Your task to perform on an android device: Clear the cart on costco.com. Search for macbook pro 15 inch on costco.com, select the first entry, add it to the cart, then select checkout. Image 0: 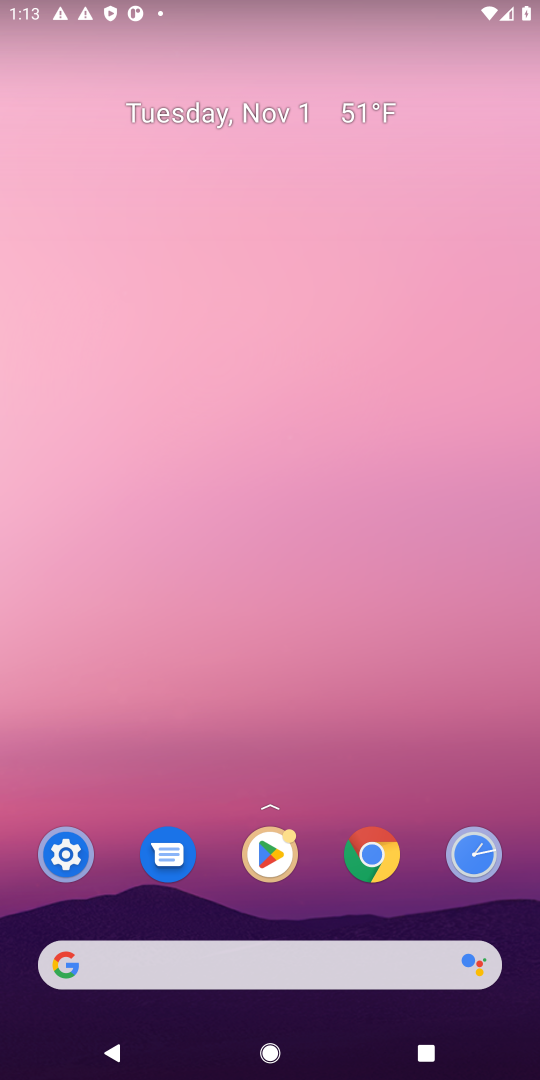
Step 0: click (259, 962)
Your task to perform on an android device: Clear the cart on costco.com. Search for macbook pro 15 inch on costco.com, select the first entry, add it to the cart, then select checkout. Image 1: 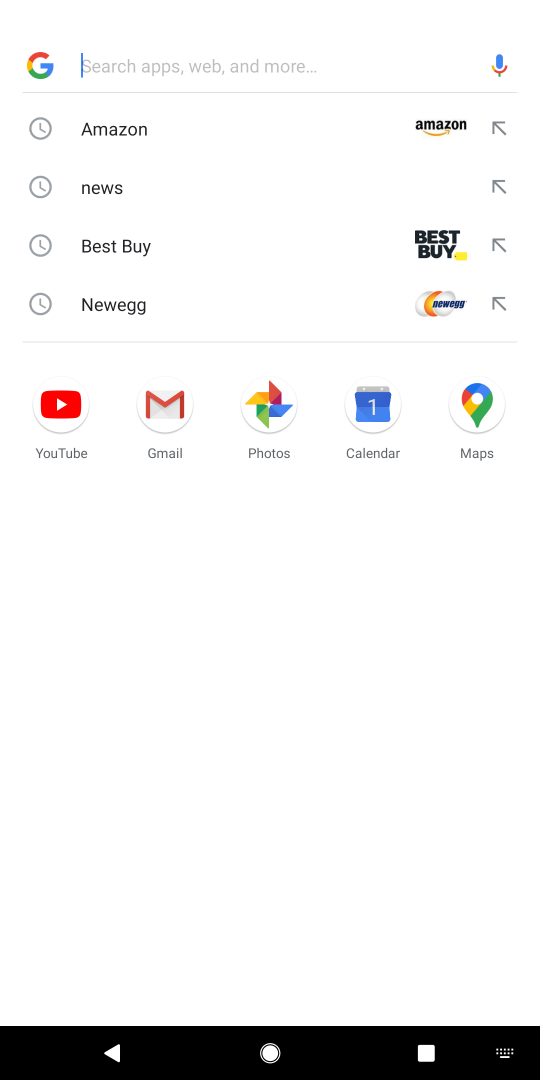
Step 1: type "costco.com"
Your task to perform on an android device: Clear the cart on costco.com. Search for macbook pro 15 inch on costco.com, select the first entry, add it to the cart, then select checkout. Image 2: 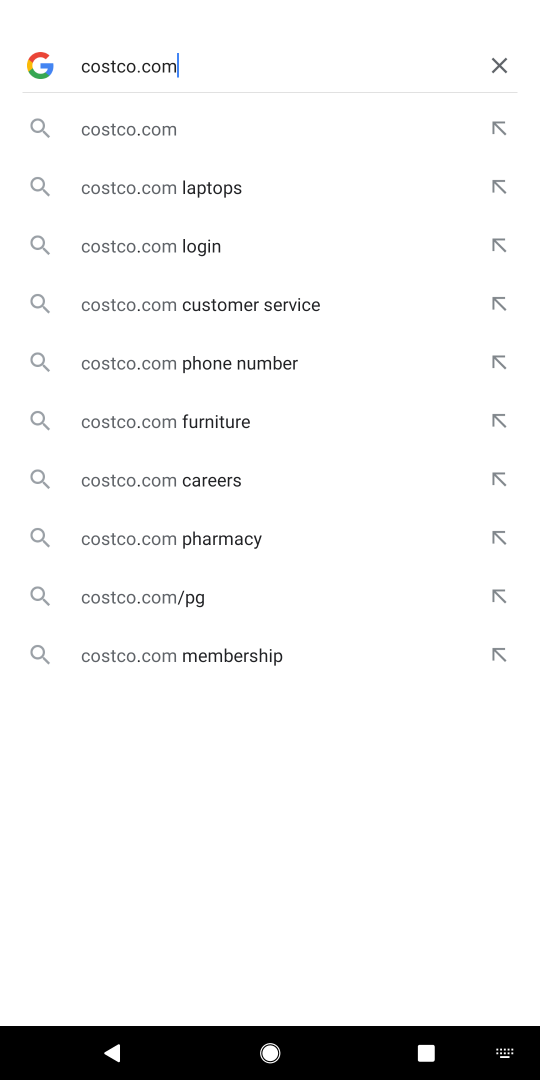
Step 2: click (134, 117)
Your task to perform on an android device: Clear the cart on costco.com. Search for macbook pro 15 inch on costco.com, select the first entry, add it to the cart, then select checkout. Image 3: 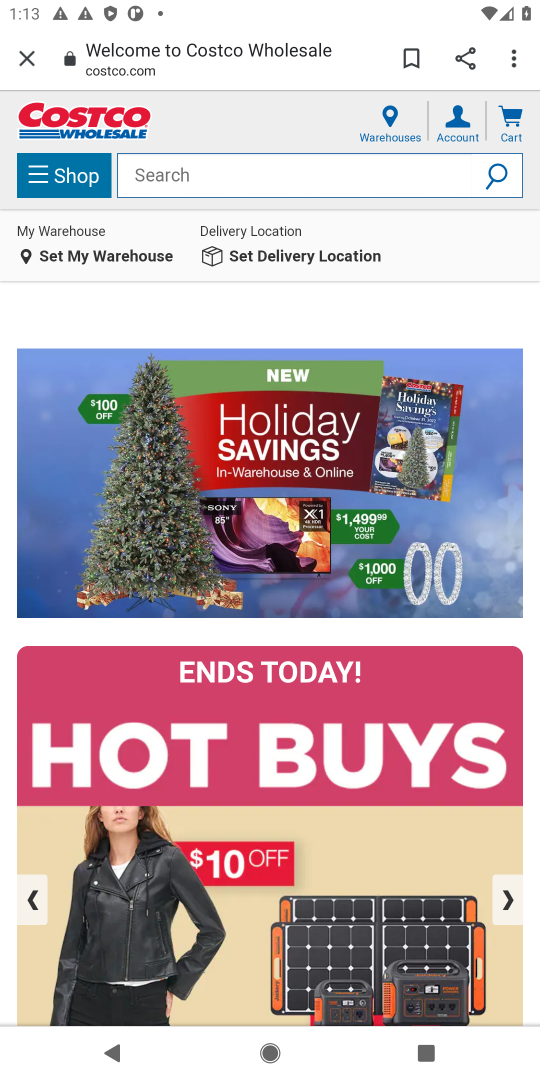
Step 3: click (161, 179)
Your task to perform on an android device: Clear the cart on costco.com. Search for macbook pro 15 inch on costco.com, select the first entry, add it to the cart, then select checkout. Image 4: 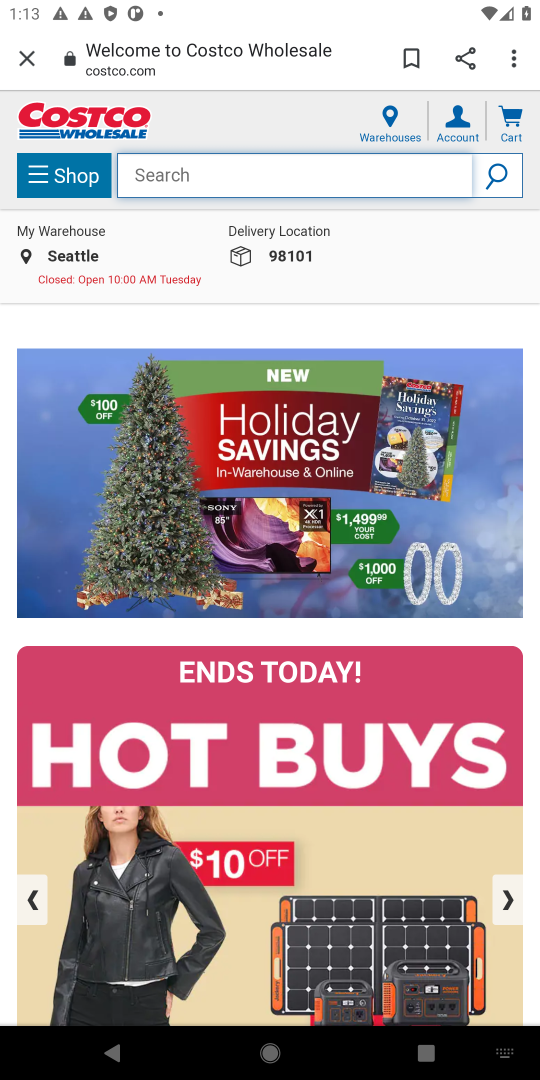
Step 4: type "macbook pro 15 inch"
Your task to perform on an android device: Clear the cart on costco.com. Search for macbook pro 15 inch on costco.com, select the first entry, add it to the cart, then select checkout. Image 5: 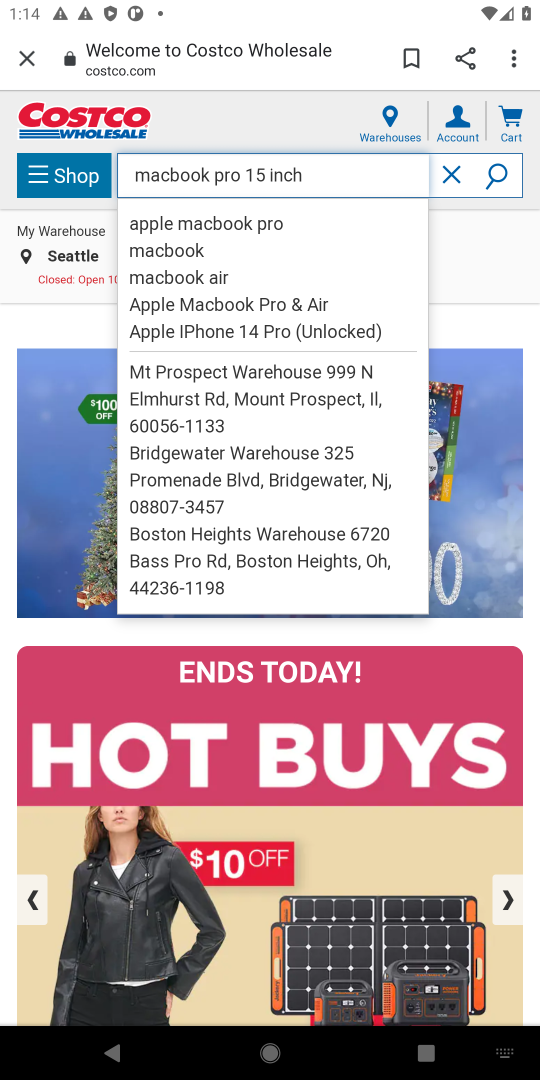
Step 5: click (193, 221)
Your task to perform on an android device: Clear the cart on costco.com. Search for macbook pro 15 inch on costco.com, select the first entry, add it to the cart, then select checkout. Image 6: 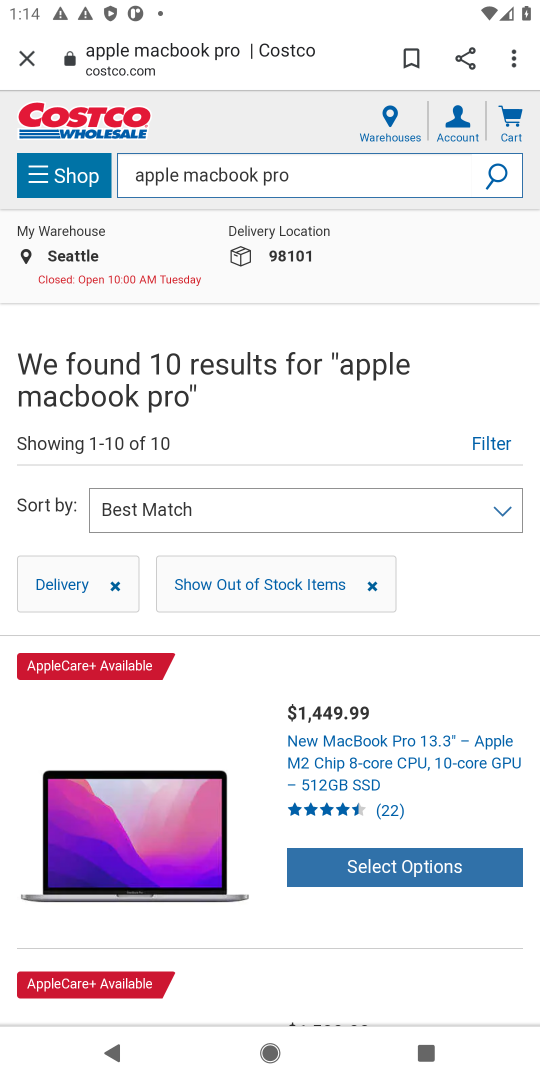
Step 6: click (379, 752)
Your task to perform on an android device: Clear the cart on costco.com. Search for macbook pro 15 inch on costco.com, select the first entry, add it to the cart, then select checkout. Image 7: 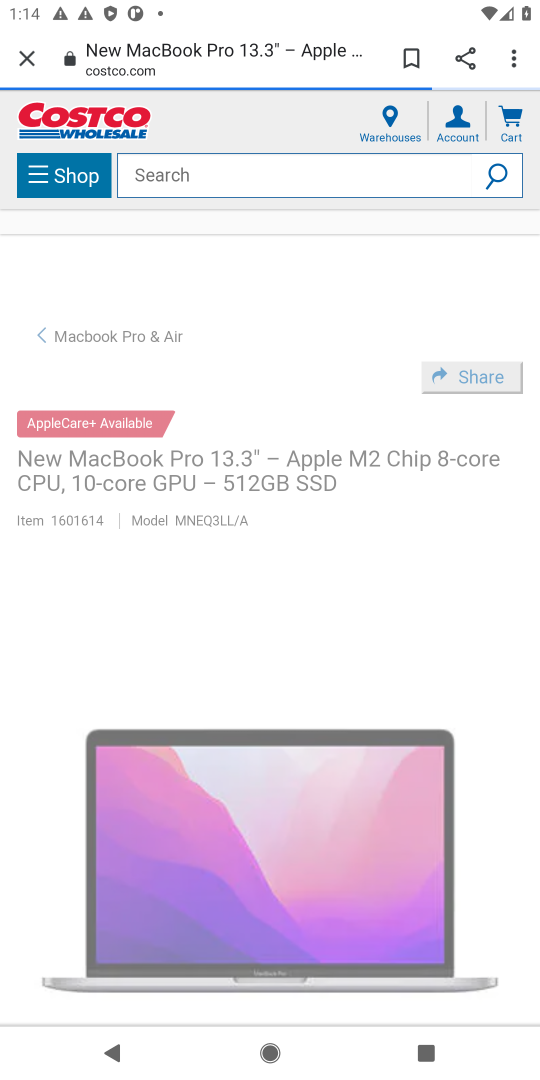
Step 7: drag from (441, 576) to (383, 257)
Your task to perform on an android device: Clear the cart on costco.com. Search for macbook pro 15 inch on costco.com, select the first entry, add it to the cart, then select checkout. Image 8: 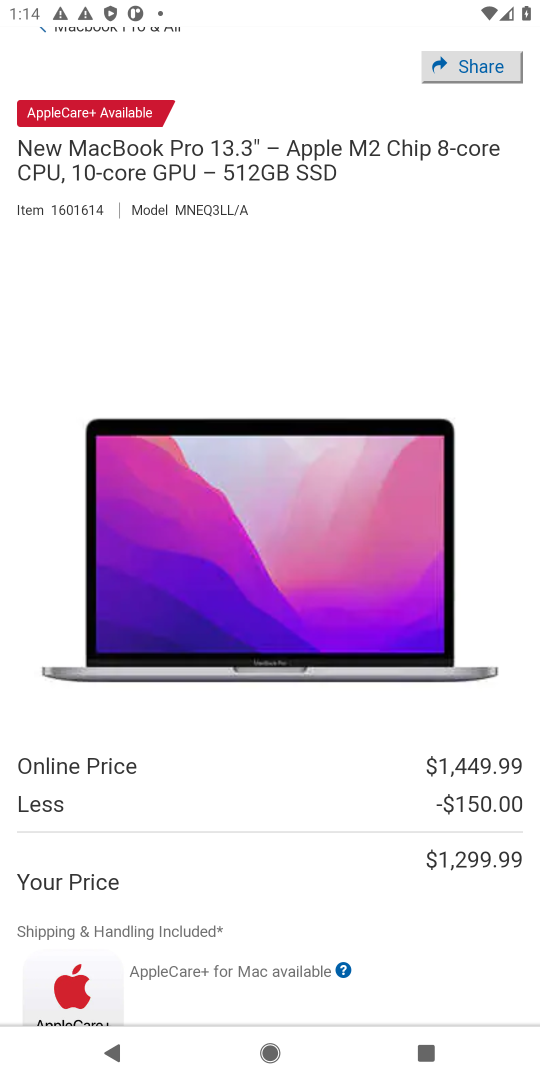
Step 8: drag from (382, 891) to (335, 583)
Your task to perform on an android device: Clear the cart on costco.com. Search for macbook pro 15 inch on costco.com, select the first entry, add it to the cart, then select checkout. Image 9: 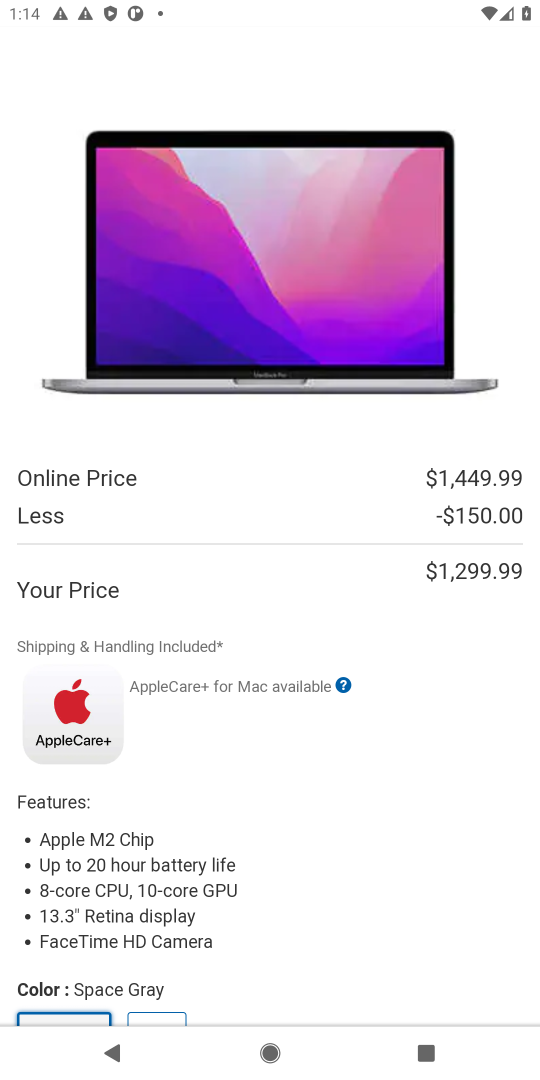
Step 9: drag from (335, 879) to (289, 579)
Your task to perform on an android device: Clear the cart on costco.com. Search for macbook pro 15 inch on costco.com, select the first entry, add it to the cart, then select checkout. Image 10: 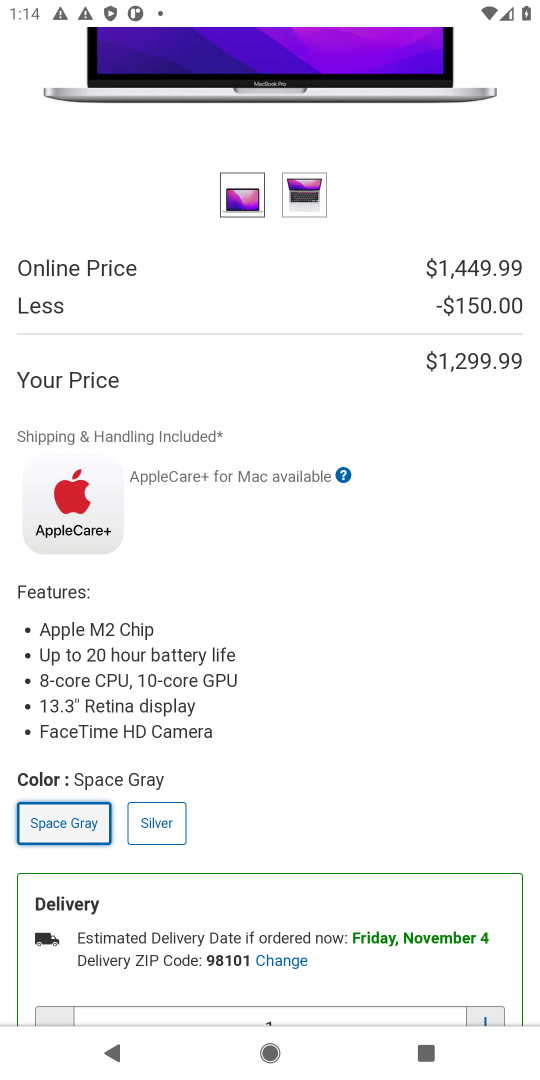
Step 10: drag from (269, 747) to (218, 288)
Your task to perform on an android device: Clear the cart on costco.com. Search for macbook pro 15 inch on costco.com, select the first entry, add it to the cart, then select checkout. Image 11: 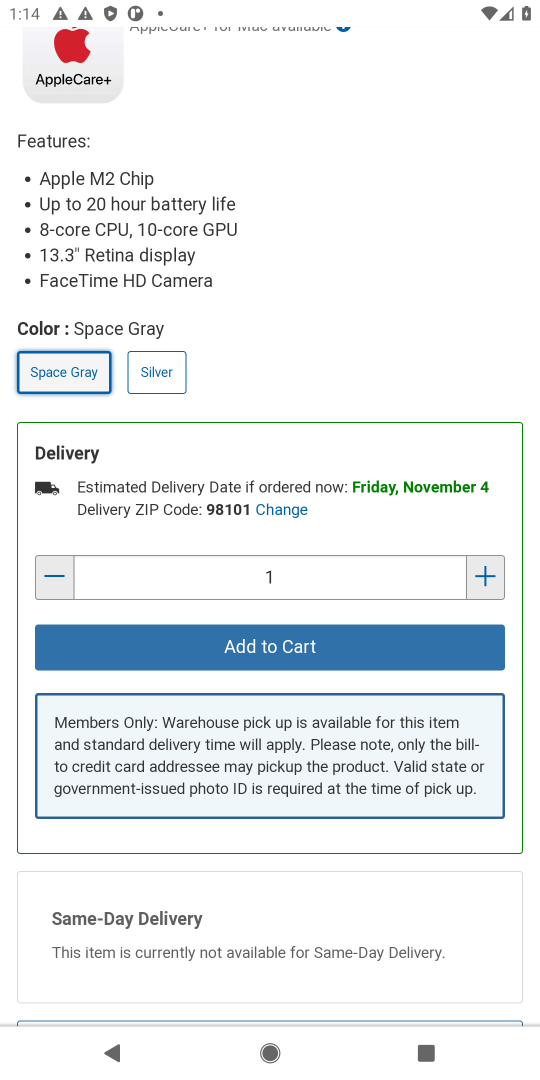
Step 11: click (261, 652)
Your task to perform on an android device: Clear the cart on costco.com. Search for macbook pro 15 inch on costco.com, select the first entry, add it to the cart, then select checkout. Image 12: 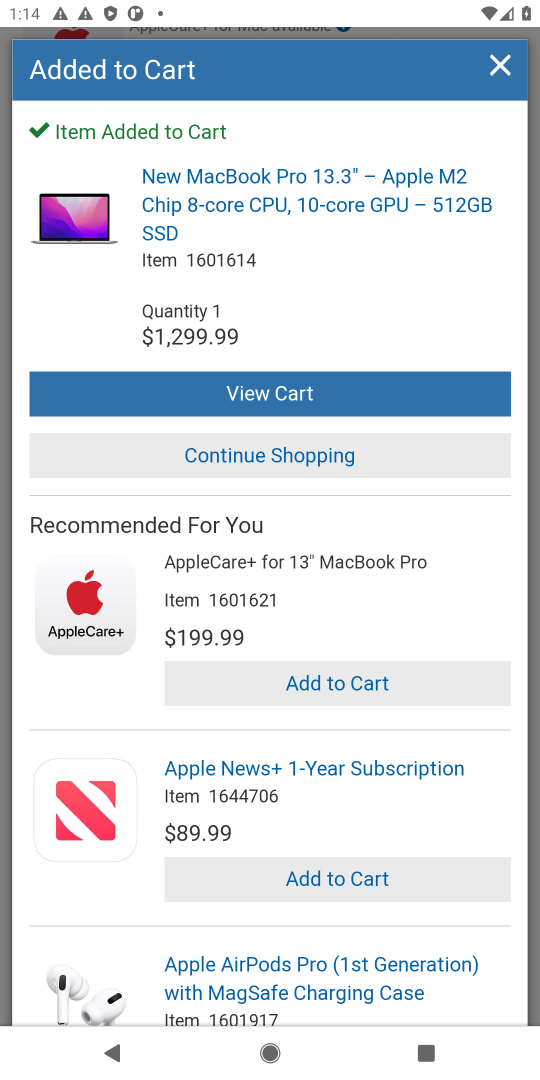
Step 12: click (301, 393)
Your task to perform on an android device: Clear the cart on costco.com. Search for macbook pro 15 inch on costco.com, select the first entry, add it to the cart, then select checkout. Image 13: 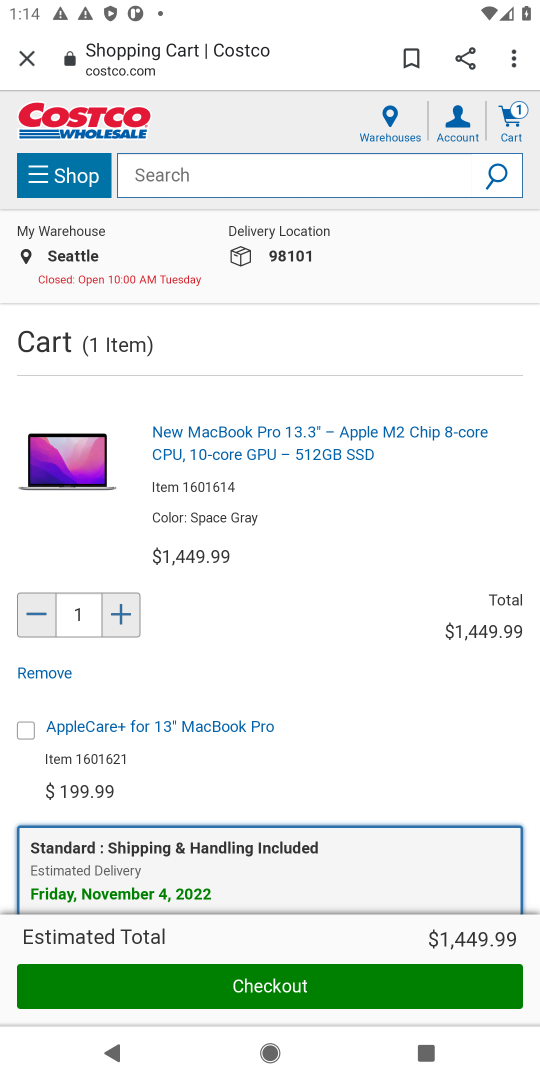
Step 13: click (310, 983)
Your task to perform on an android device: Clear the cart on costco.com. Search for macbook pro 15 inch on costco.com, select the first entry, add it to the cart, then select checkout. Image 14: 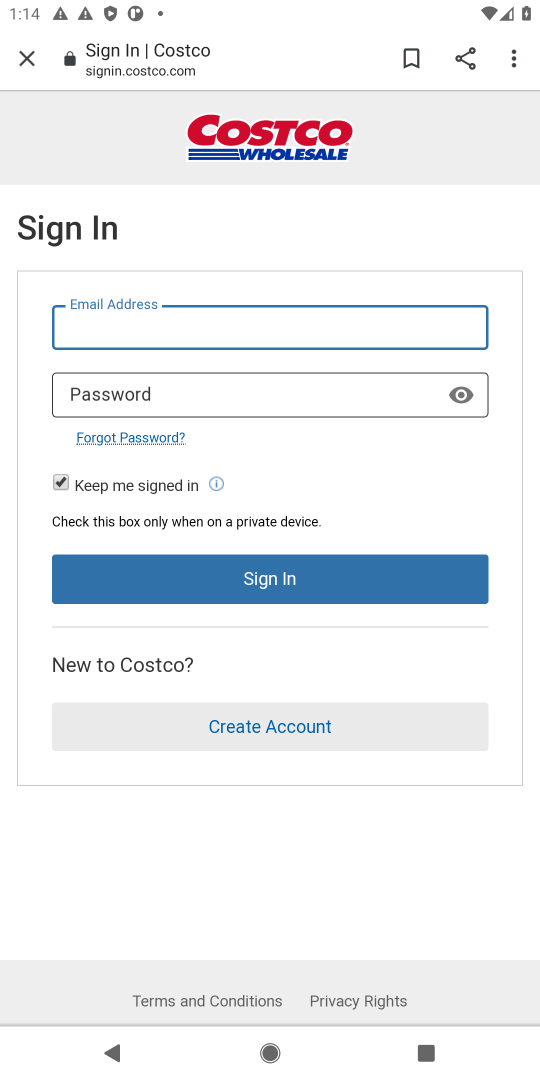
Step 14: task complete